Your task to perform on an android device: Is it going to rain tomorrow? Image 0: 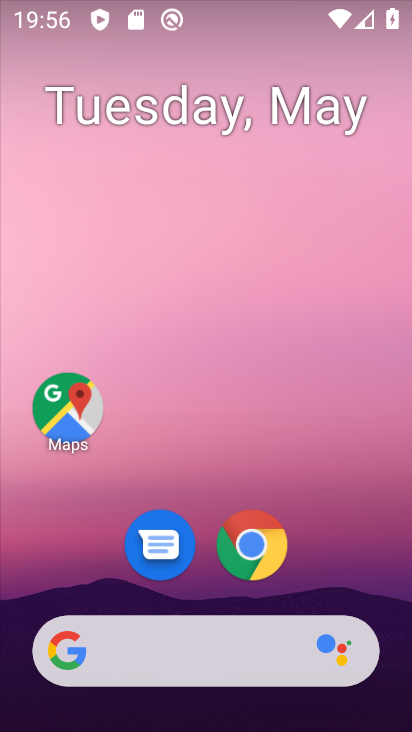
Step 0: drag from (331, 575) to (318, 170)
Your task to perform on an android device: Is it going to rain tomorrow? Image 1: 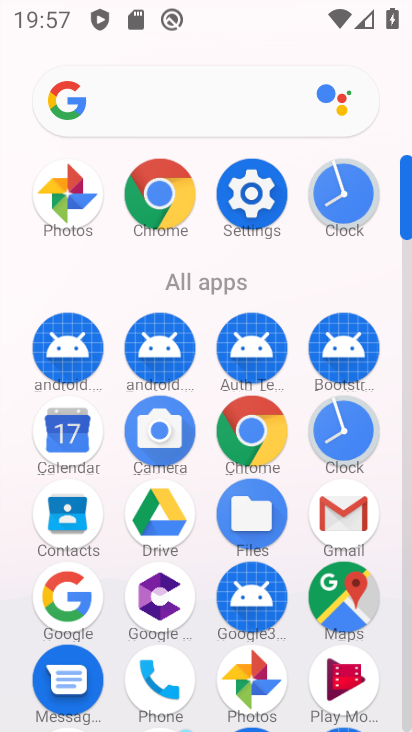
Step 1: click (260, 211)
Your task to perform on an android device: Is it going to rain tomorrow? Image 2: 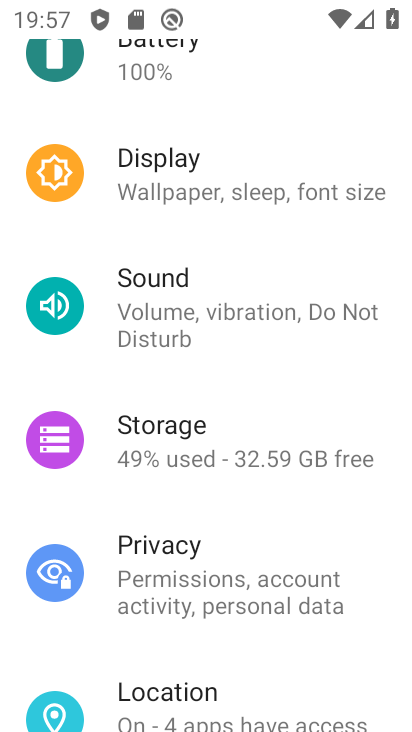
Step 2: drag from (240, 655) to (227, 391)
Your task to perform on an android device: Is it going to rain tomorrow? Image 3: 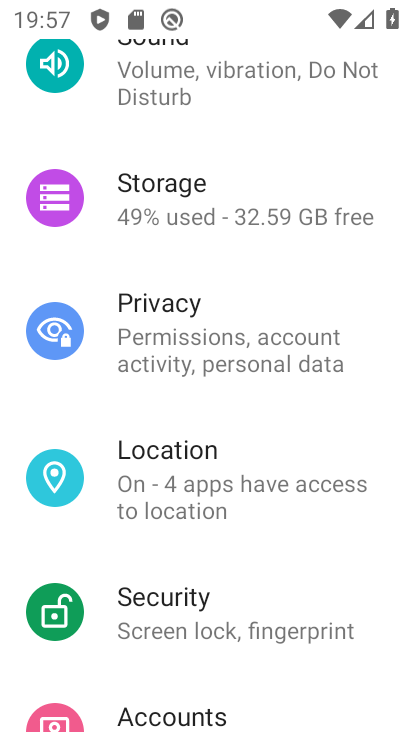
Step 3: drag from (191, 679) to (175, 382)
Your task to perform on an android device: Is it going to rain tomorrow? Image 4: 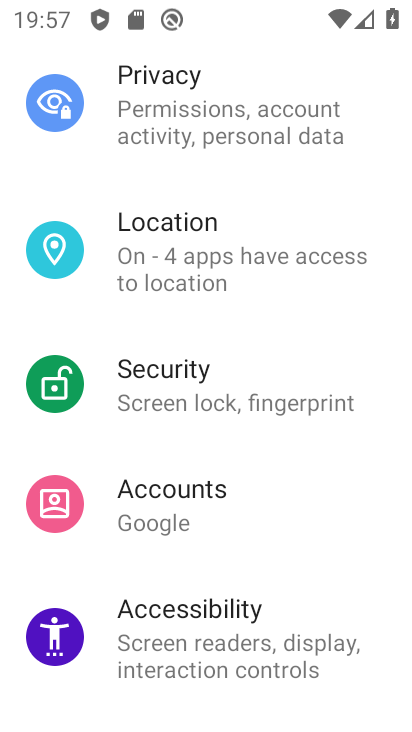
Step 4: press home button
Your task to perform on an android device: Is it going to rain tomorrow? Image 5: 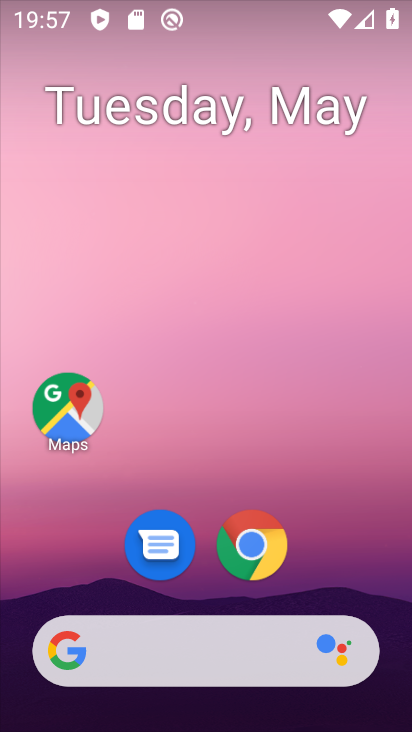
Step 5: drag from (60, 235) to (397, 316)
Your task to perform on an android device: Is it going to rain tomorrow? Image 6: 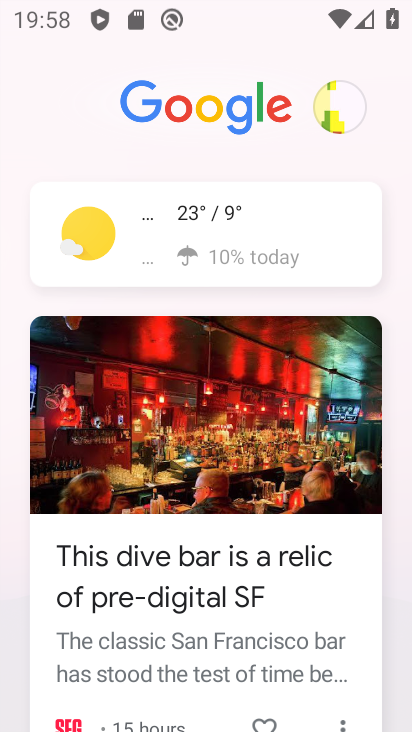
Step 6: drag from (266, 545) to (272, 458)
Your task to perform on an android device: Is it going to rain tomorrow? Image 7: 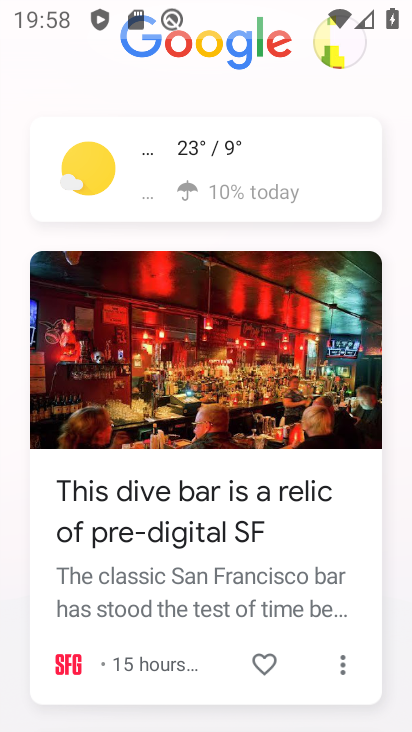
Step 7: click (282, 157)
Your task to perform on an android device: Is it going to rain tomorrow? Image 8: 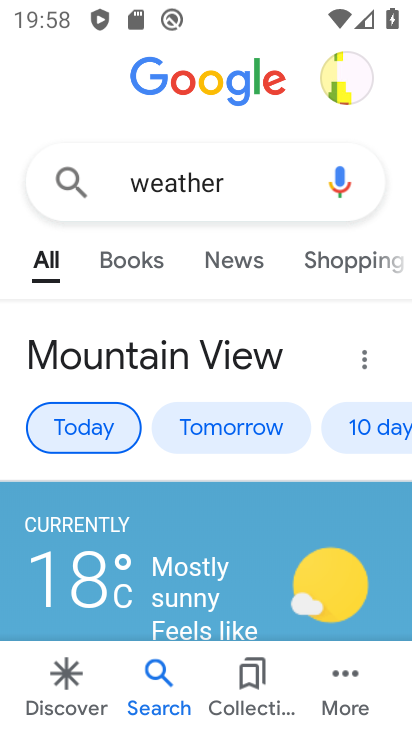
Step 8: click (249, 424)
Your task to perform on an android device: Is it going to rain tomorrow? Image 9: 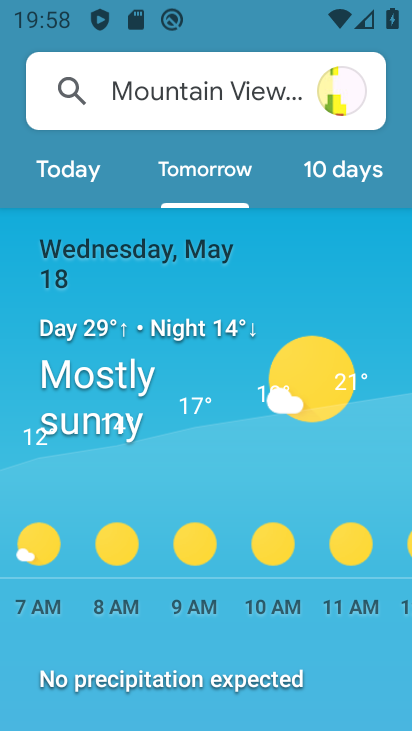
Step 9: task complete